Your task to perform on an android device: turn off notifications settings in the gmail app Image 0: 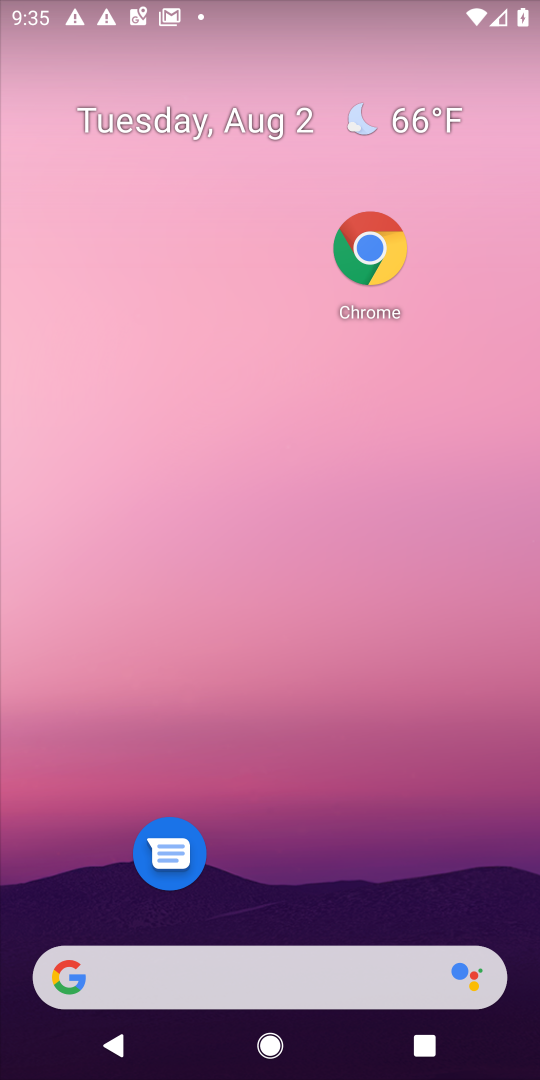
Step 0: drag from (266, 932) to (462, 57)
Your task to perform on an android device: turn off notifications settings in the gmail app Image 1: 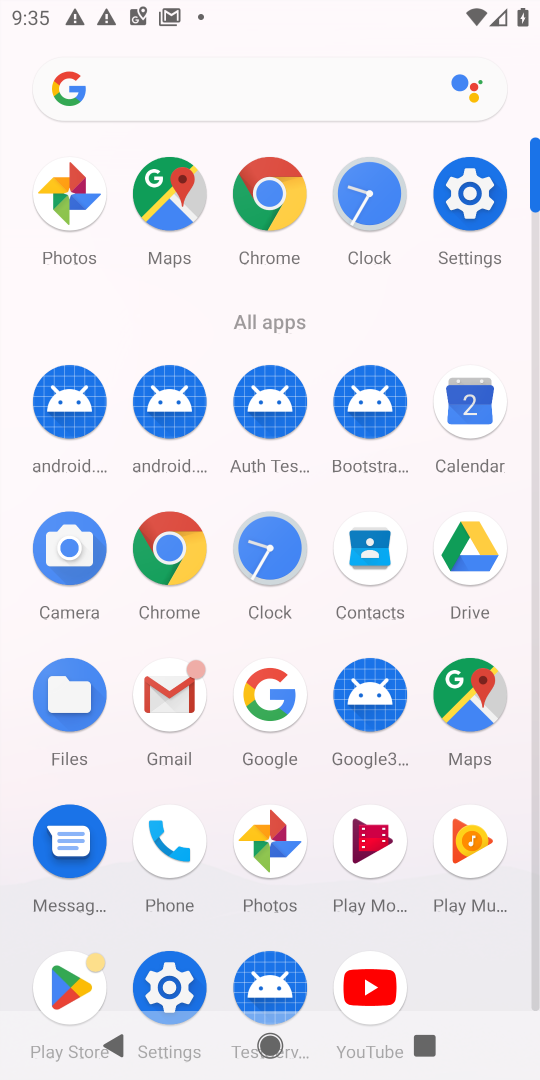
Step 1: click (181, 682)
Your task to perform on an android device: turn off notifications settings in the gmail app Image 2: 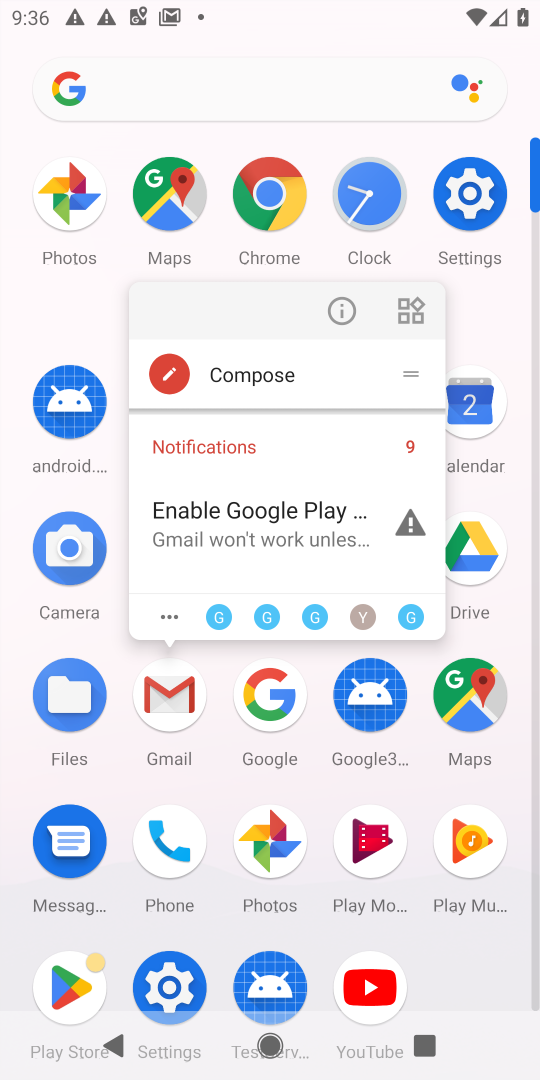
Step 2: click (165, 729)
Your task to perform on an android device: turn off notifications settings in the gmail app Image 3: 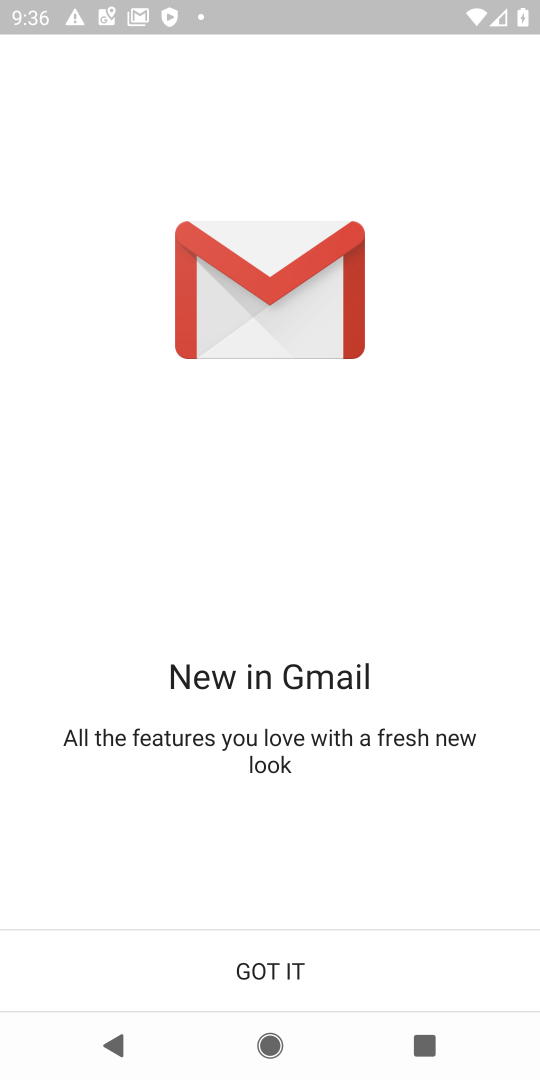
Step 3: click (233, 943)
Your task to perform on an android device: turn off notifications settings in the gmail app Image 4: 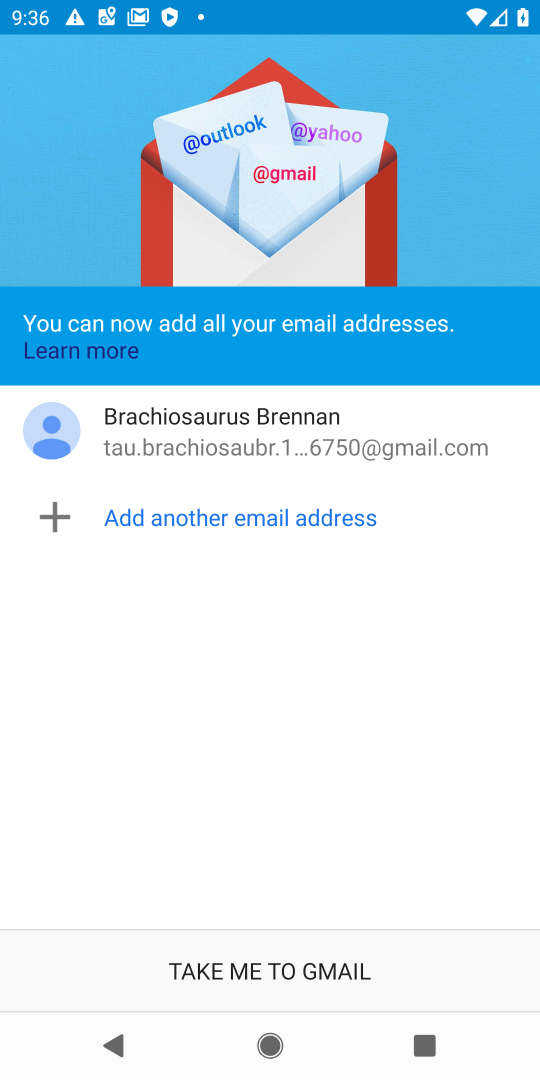
Step 4: click (263, 945)
Your task to perform on an android device: turn off notifications settings in the gmail app Image 5: 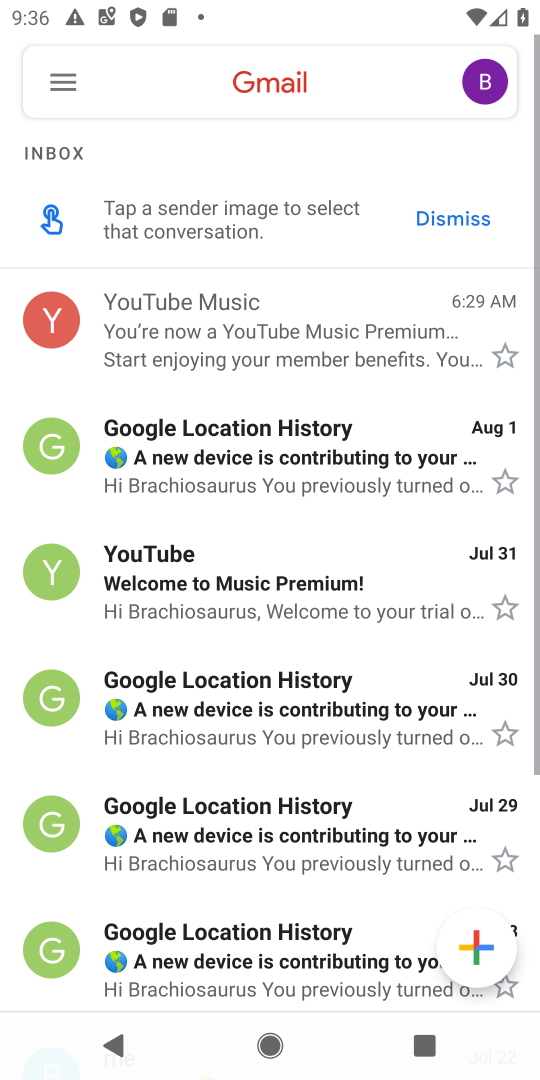
Step 5: click (65, 90)
Your task to perform on an android device: turn off notifications settings in the gmail app Image 6: 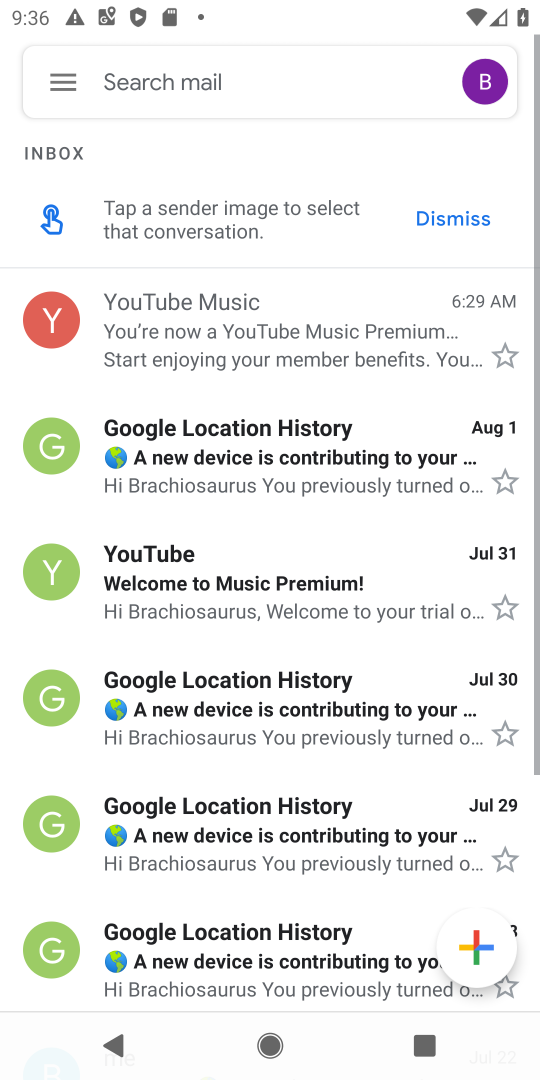
Step 6: click (47, 73)
Your task to perform on an android device: turn off notifications settings in the gmail app Image 7: 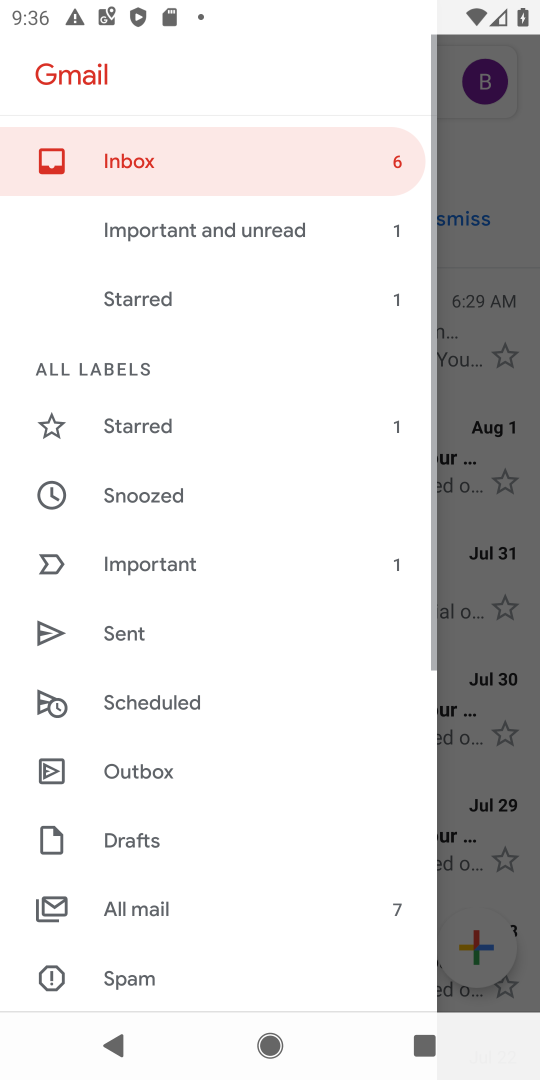
Step 7: drag from (182, 915) to (233, 110)
Your task to perform on an android device: turn off notifications settings in the gmail app Image 8: 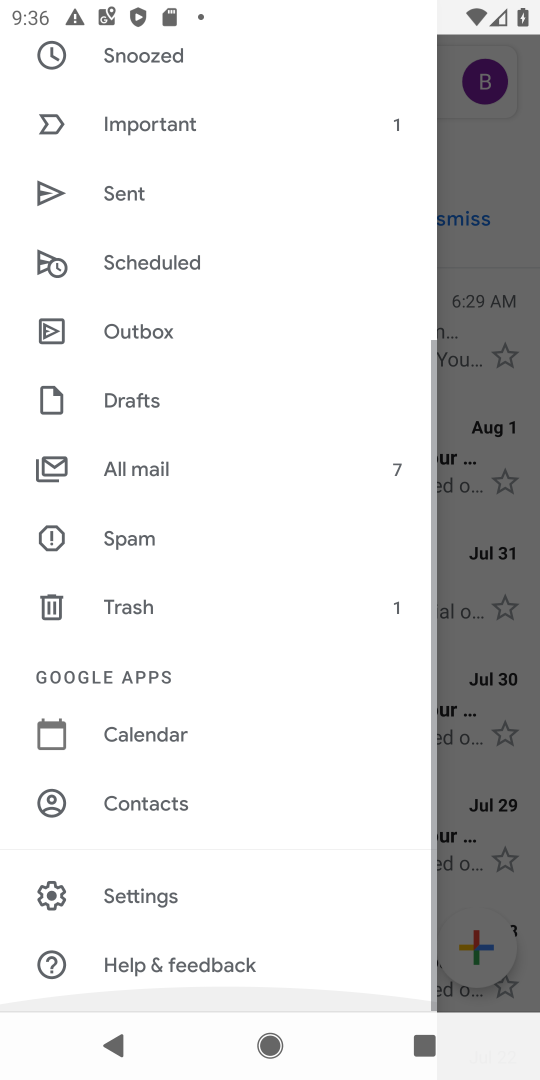
Step 8: click (188, 880)
Your task to perform on an android device: turn off notifications settings in the gmail app Image 9: 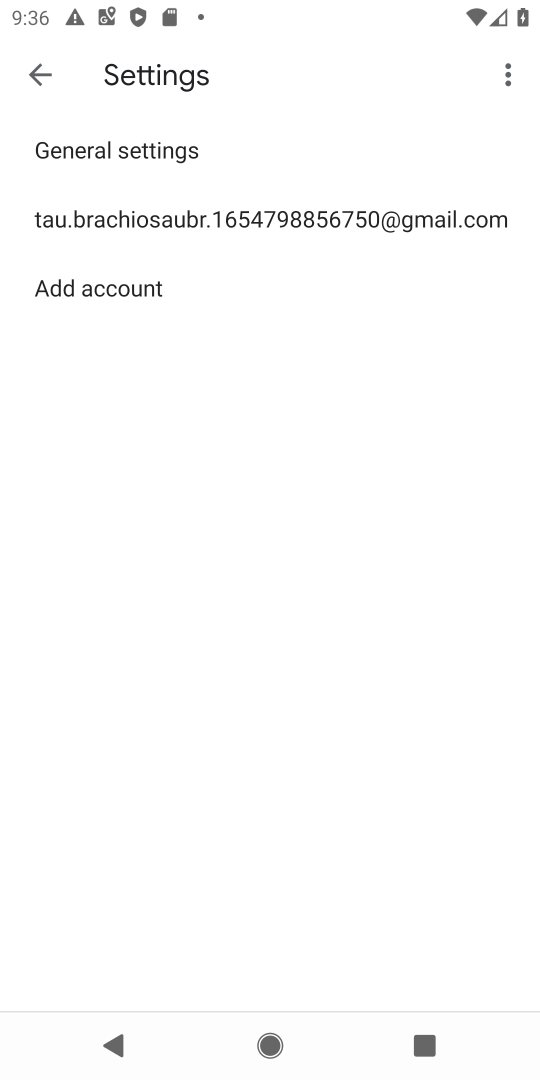
Step 9: click (67, 155)
Your task to perform on an android device: turn off notifications settings in the gmail app Image 10: 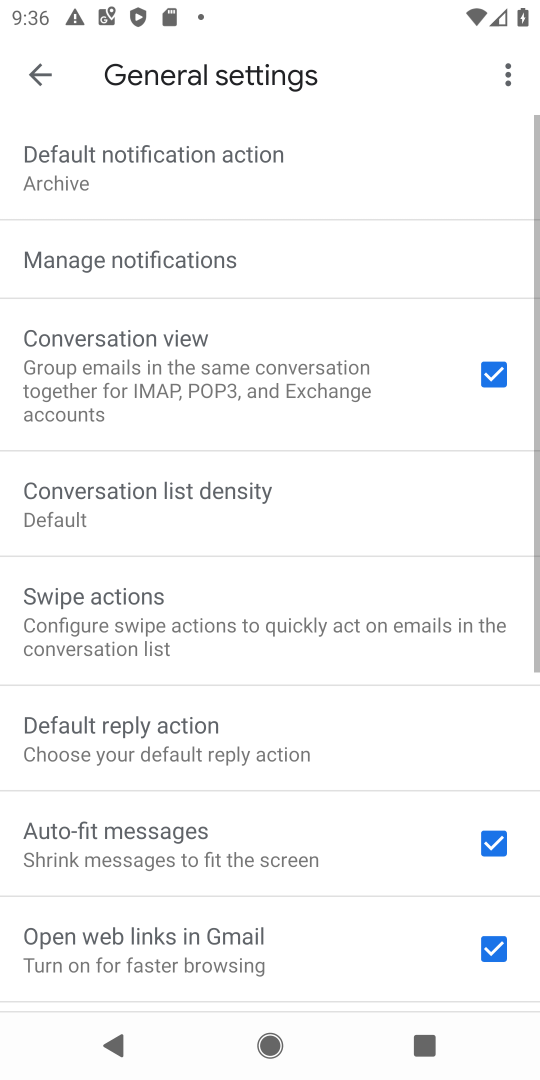
Step 10: click (130, 255)
Your task to perform on an android device: turn off notifications settings in the gmail app Image 11: 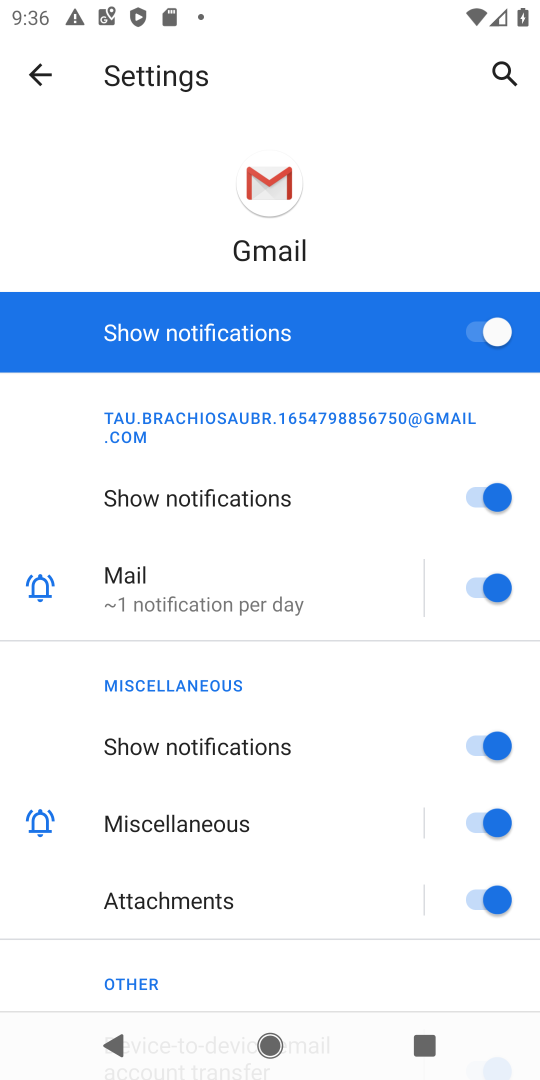
Step 11: click (465, 335)
Your task to perform on an android device: turn off notifications settings in the gmail app Image 12: 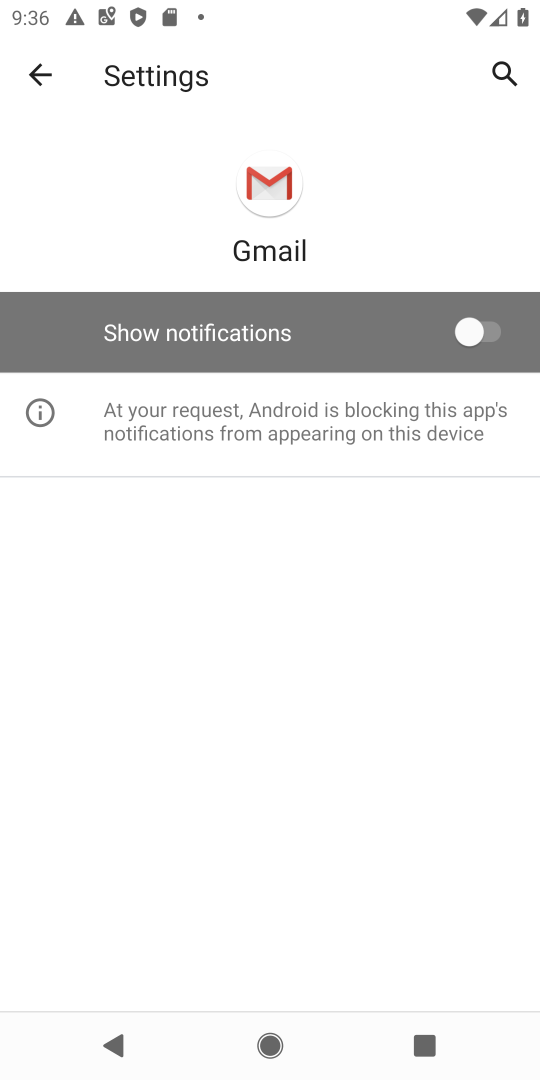
Step 12: task complete